Your task to perform on an android device: turn on wifi Image 0: 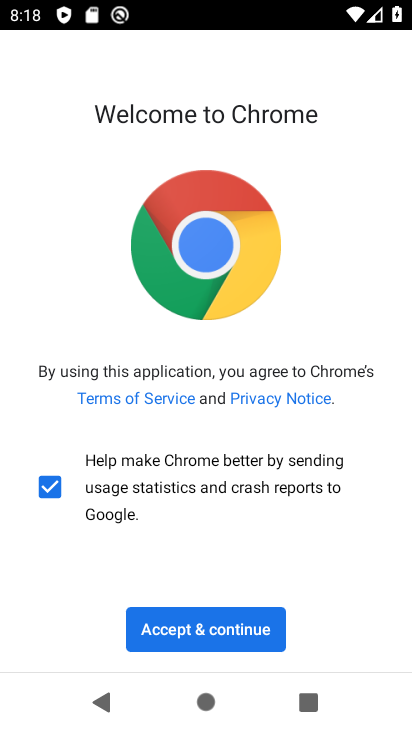
Step 0: press back button
Your task to perform on an android device: turn on wifi Image 1: 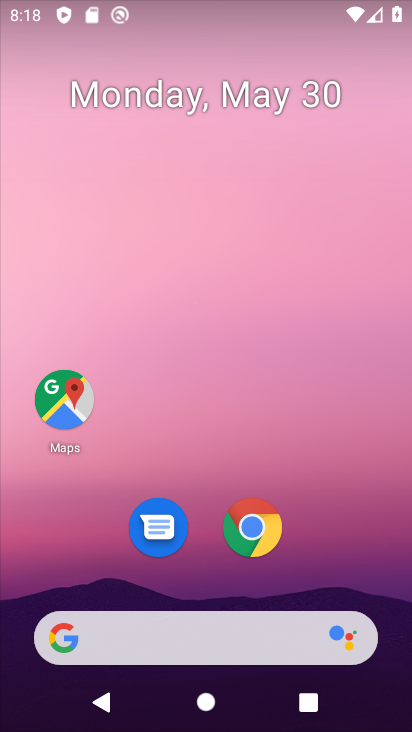
Step 1: drag from (291, 431) to (232, 105)
Your task to perform on an android device: turn on wifi Image 2: 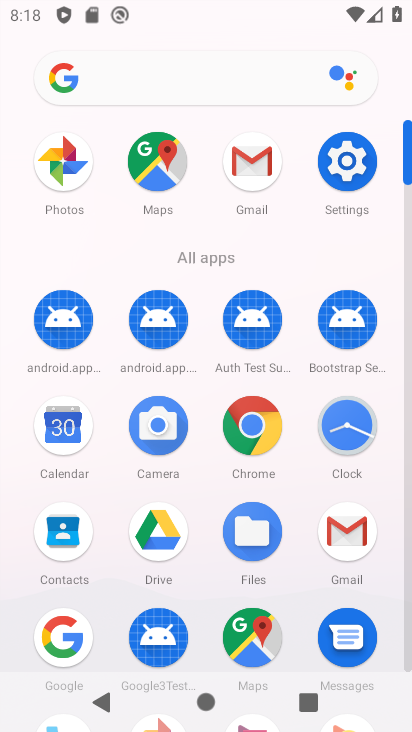
Step 2: click (326, 158)
Your task to perform on an android device: turn on wifi Image 3: 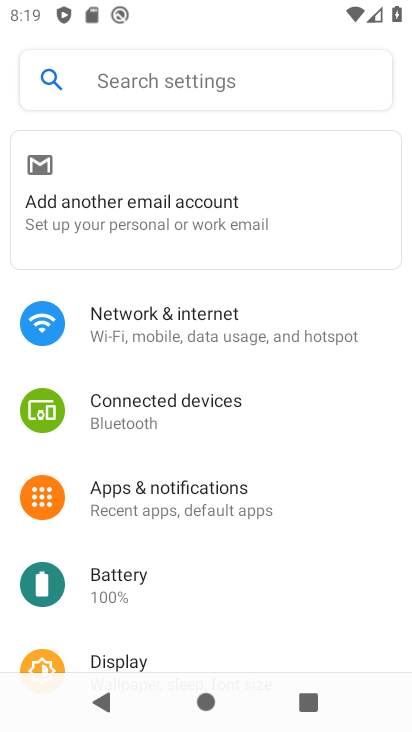
Step 3: click (220, 333)
Your task to perform on an android device: turn on wifi Image 4: 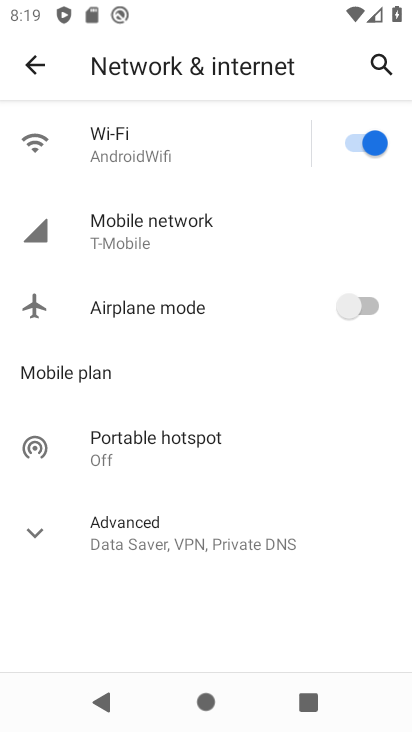
Step 4: task complete